Your task to perform on an android device: open app "Pandora - Music & Podcasts" Image 0: 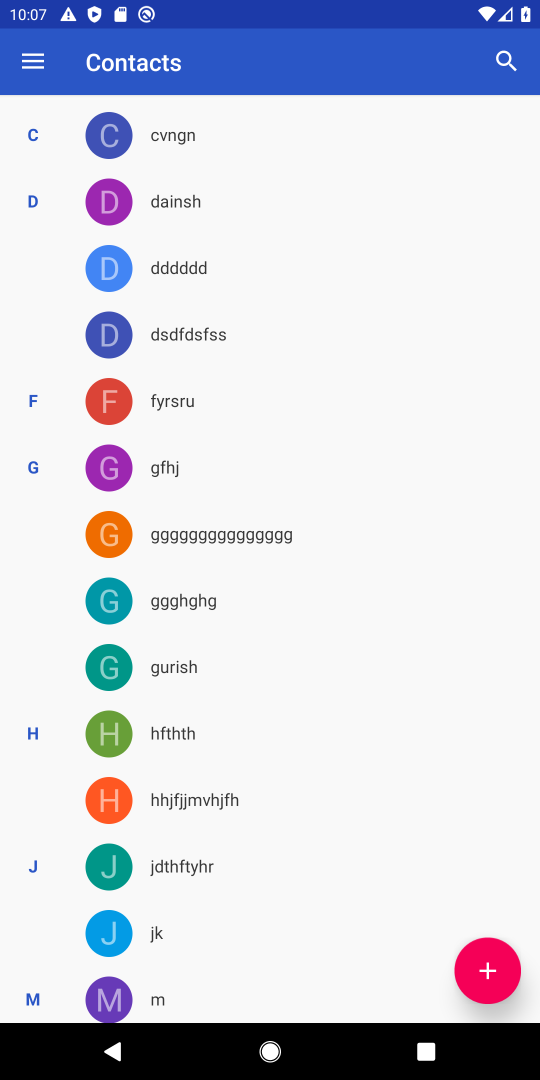
Step 0: press home button
Your task to perform on an android device: open app "Pandora - Music & Podcasts" Image 1: 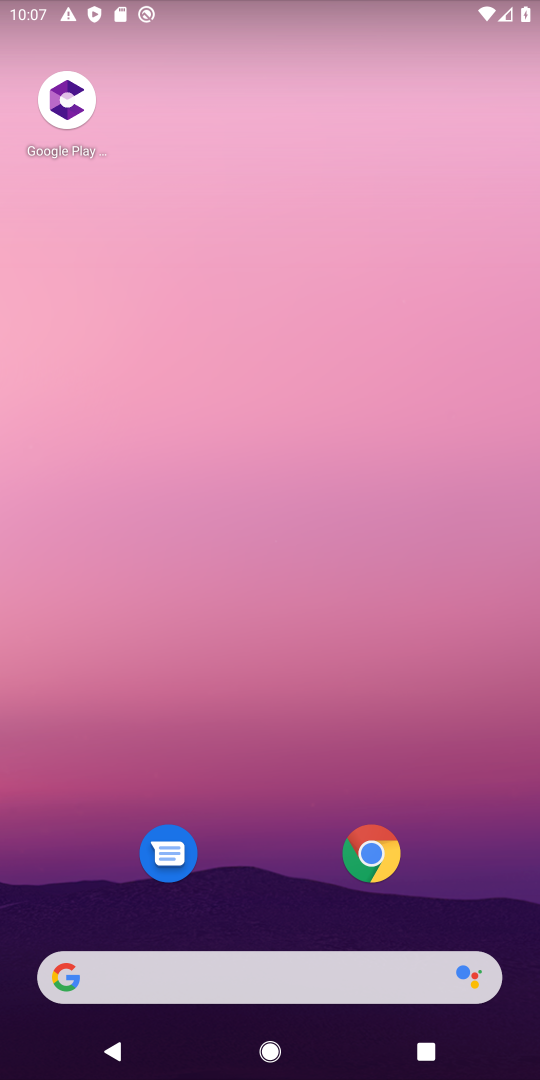
Step 1: drag from (210, 830) to (198, 54)
Your task to perform on an android device: open app "Pandora - Music & Podcasts" Image 2: 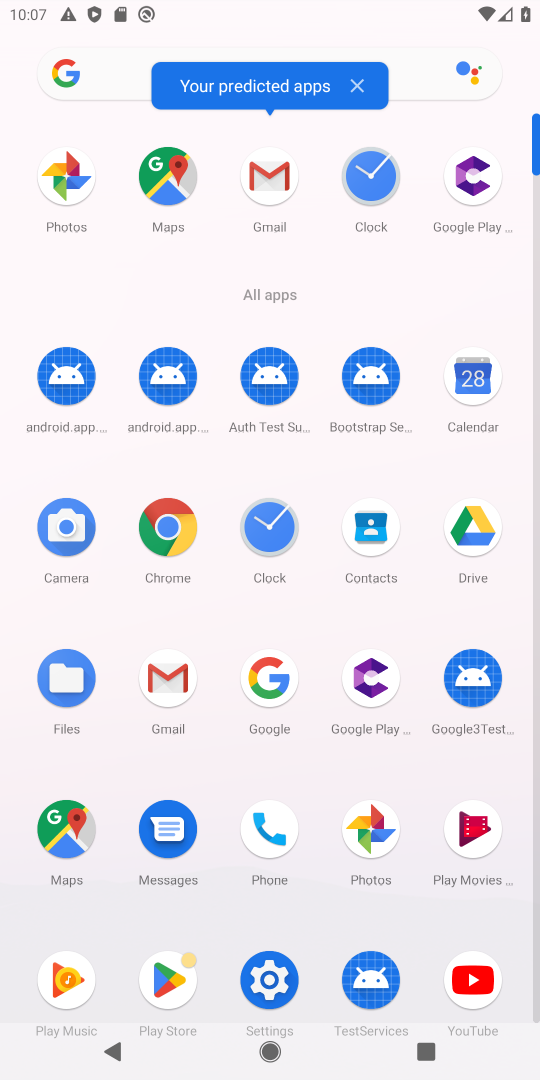
Step 2: click (164, 962)
Your task to perform on an android device: open app "Pandora - Music & Podcasts" Image 3: 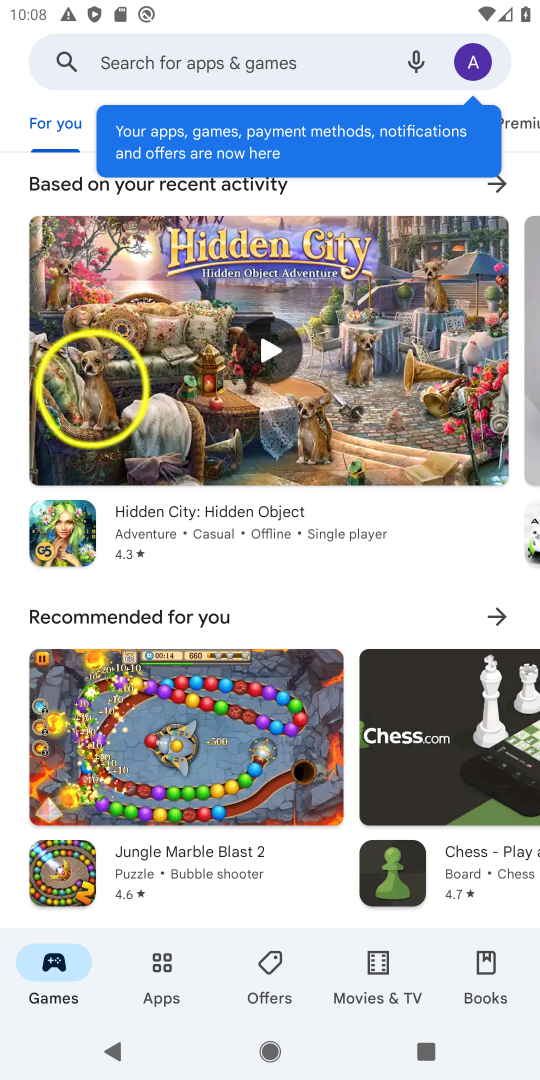
Step 3: click (146, 61)
Your task to perform on an android device: open app "Pandora - Music & Podcasts" Image 4: 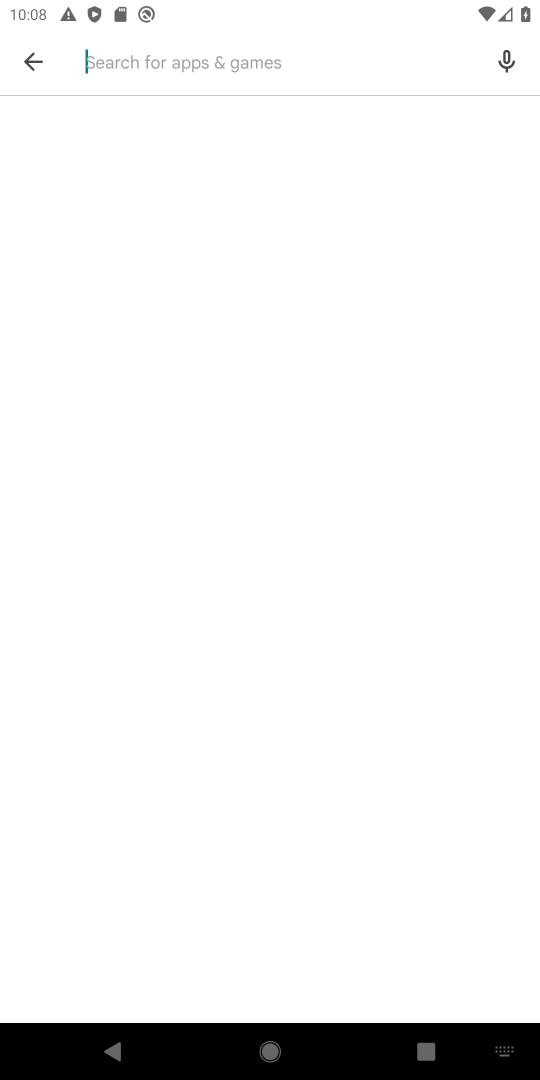
Step 4: type "Pandora - Music & Podcasts"
Your task to perform on an android device: open app "Pandora - Music & Podcasts" Image 5: 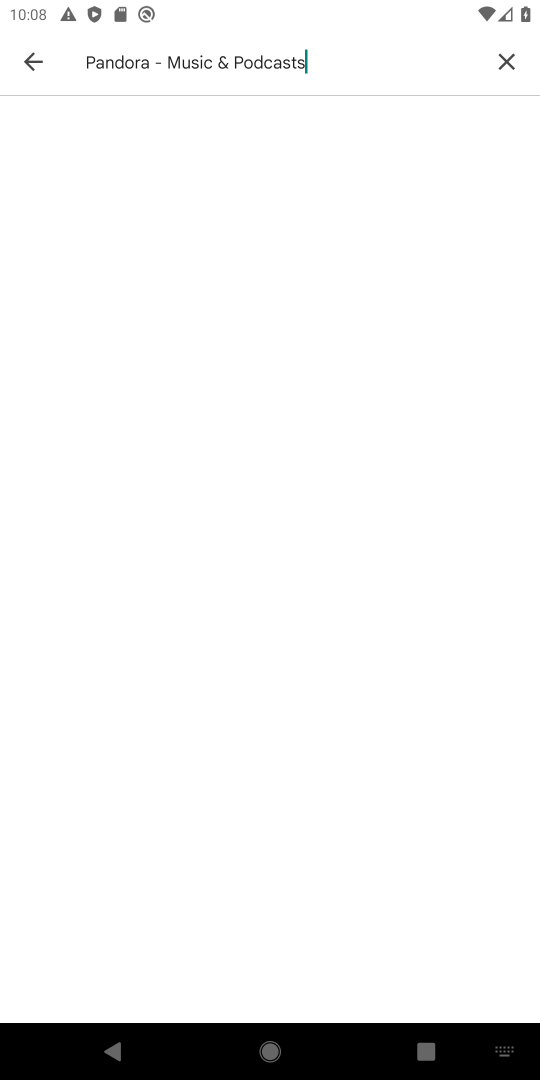
Step 5: type ""
Your task to perform on an android device: open app "Pandora - Music & Podcasts" Image 6: 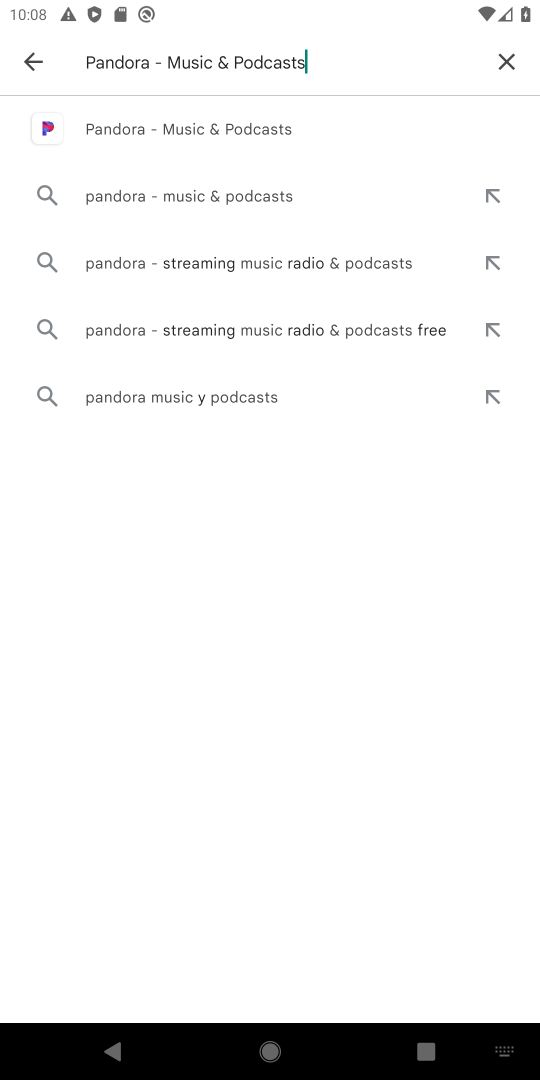
Step 6: click (205, 134)
Your task to perform on an android device: open app "Pandora - Music & Podcasts" Image 7: 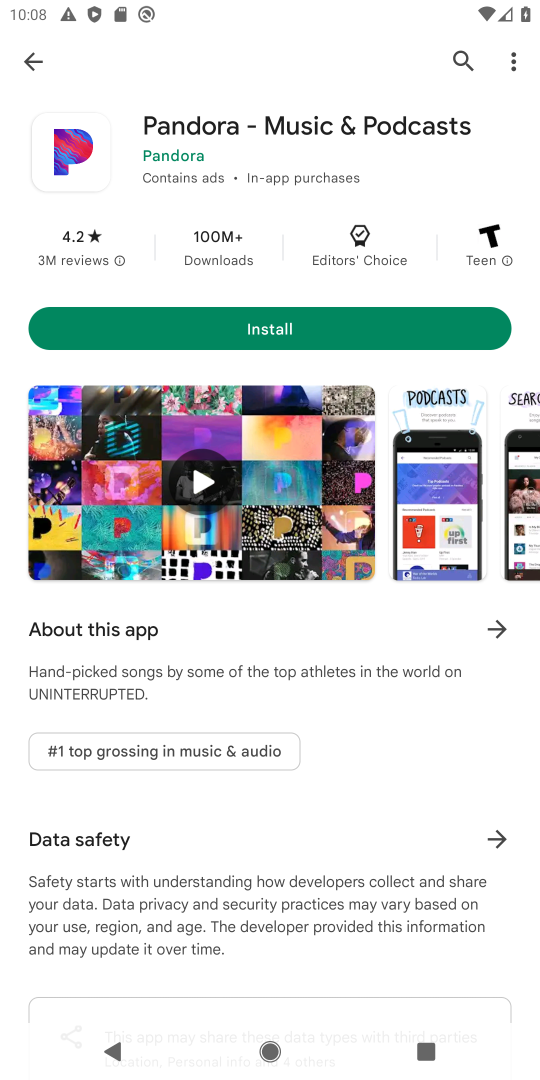
Step 7: task complete